Your task to perform on an android device: Open Google Chrome and open the bookmarks view Image 0: 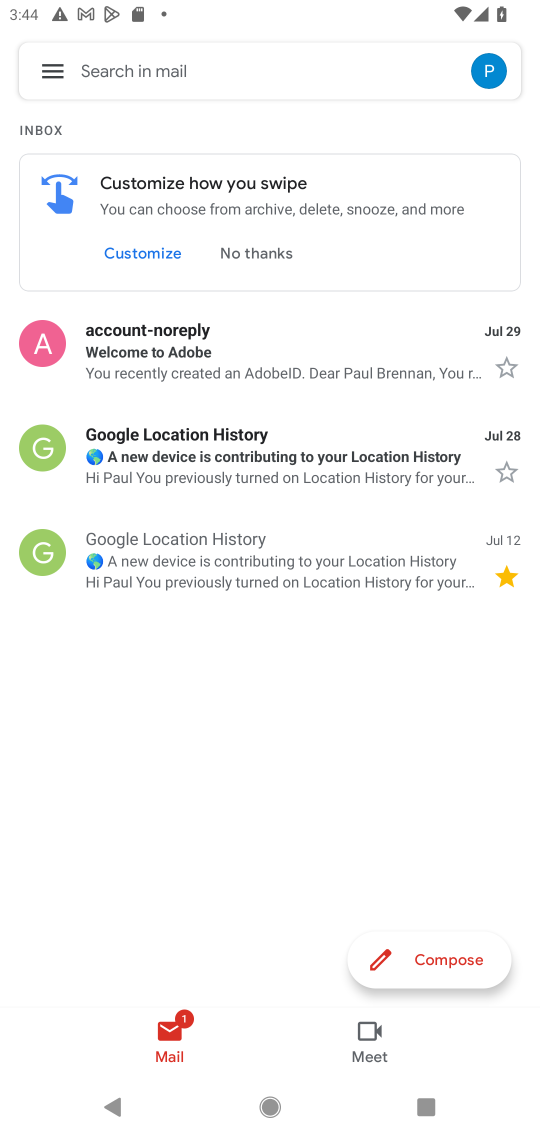
Step 0: press home button
Your task to perform on an android device: Open Google Chrome and open the bookmarks view Image 1: 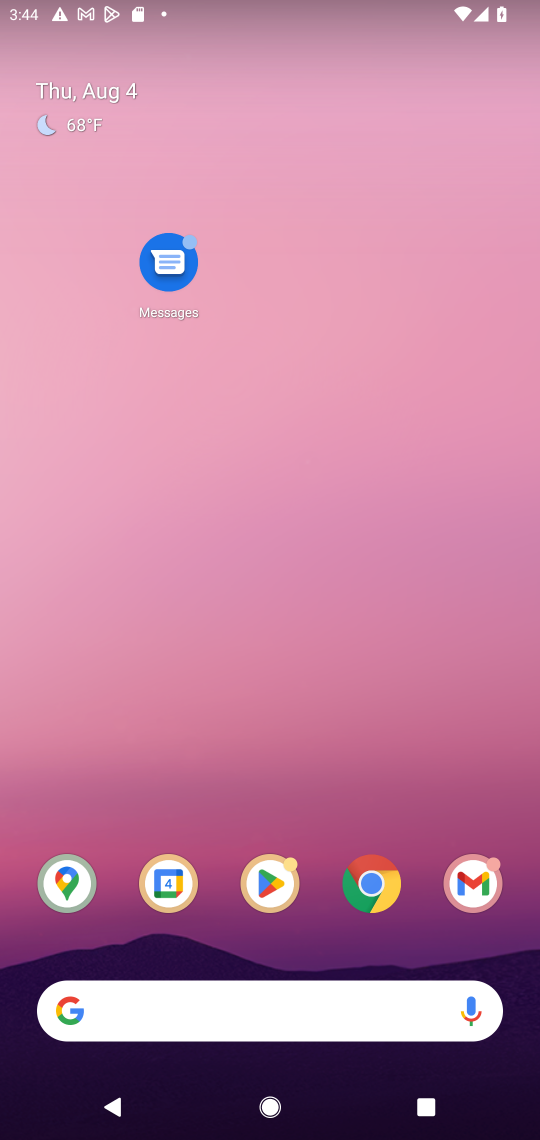
Step 1: drag from (315, 960) to (315, 149)
Your task to perform on an android device: Open Google Chrome and open the bookmarks view Image 2: 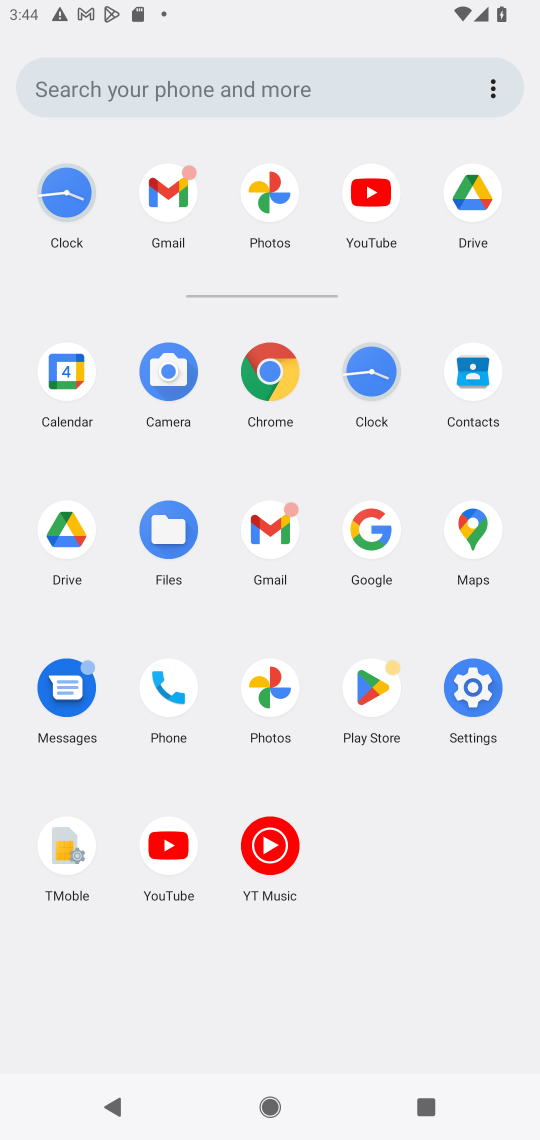
Step 2: click (274, 372)
Your task to perform on an android device: Open Google Chrome and open the bookmarks view Image 3: 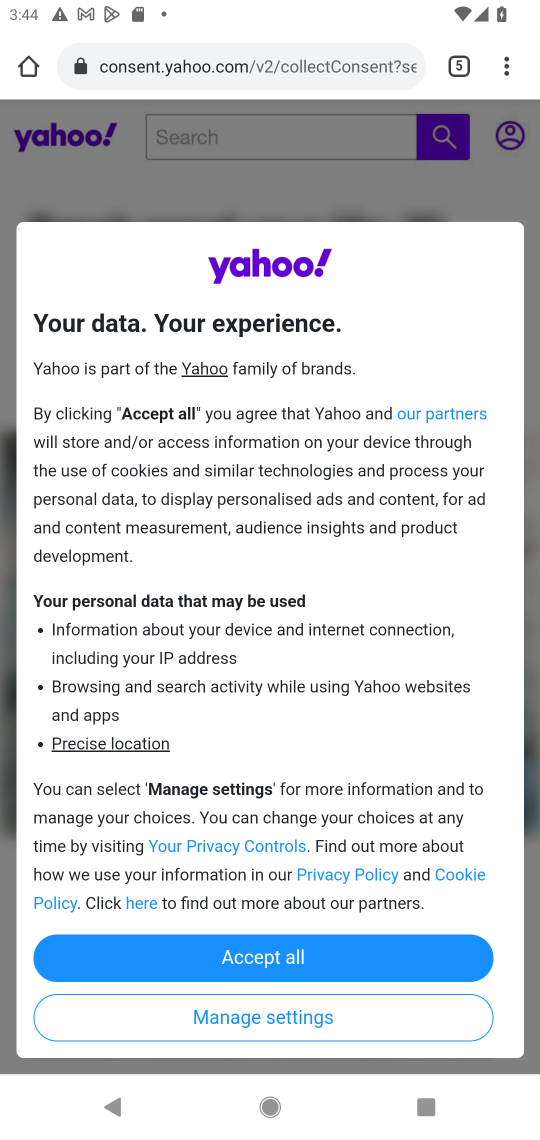
Step 3: click (505, 75)
Your task to perform on an android device: Open Google Chrome and open the bookmarks view Image 4: 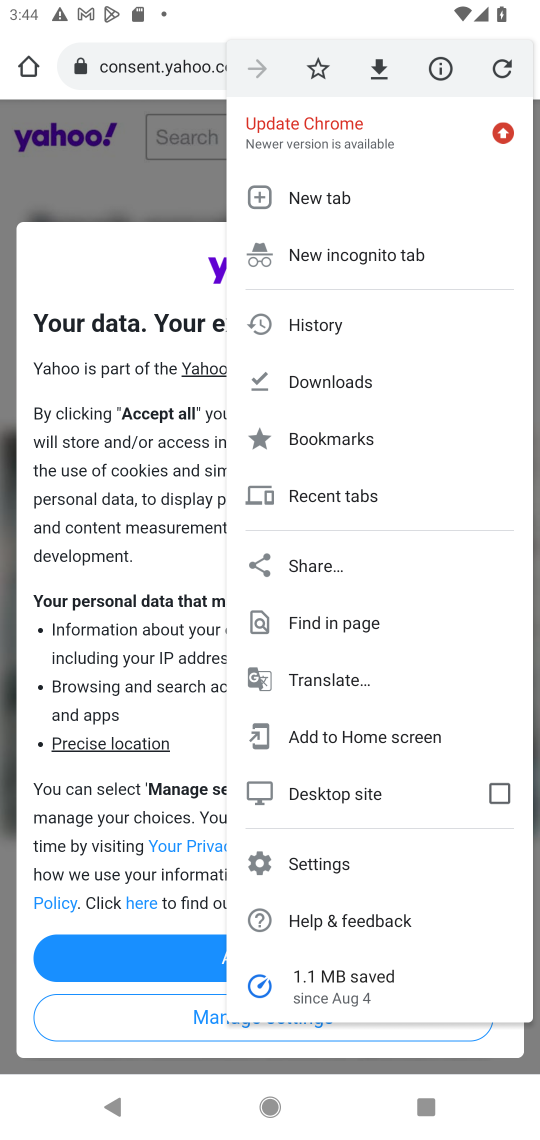
Step 4: click (325, 440)
Your task to perform on an android device: Open Google Chrome and open the bookmarks view Image 5: 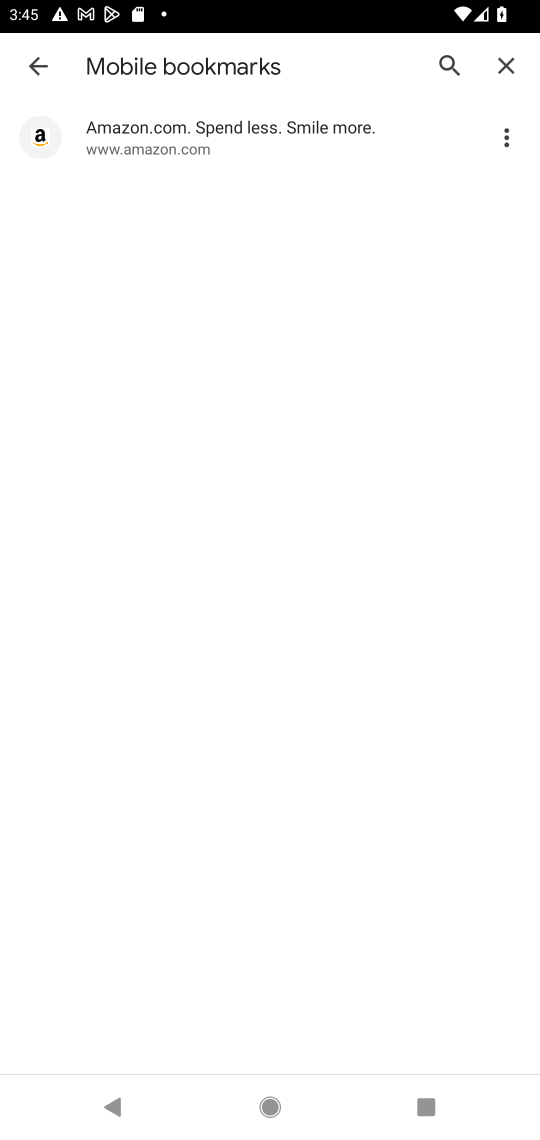
Step 5: task complete